Your task to perform on an android device: Go to Reddit.com Image 0: 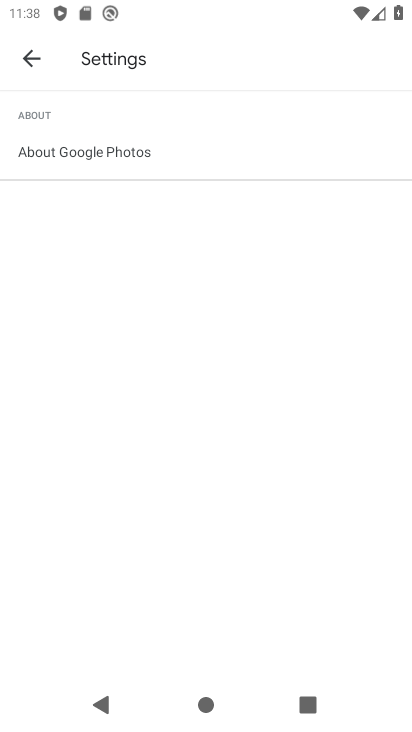
Step 0: click (35, 53)
Your task to perform on an android device: Go to Reddit.com Image 1: 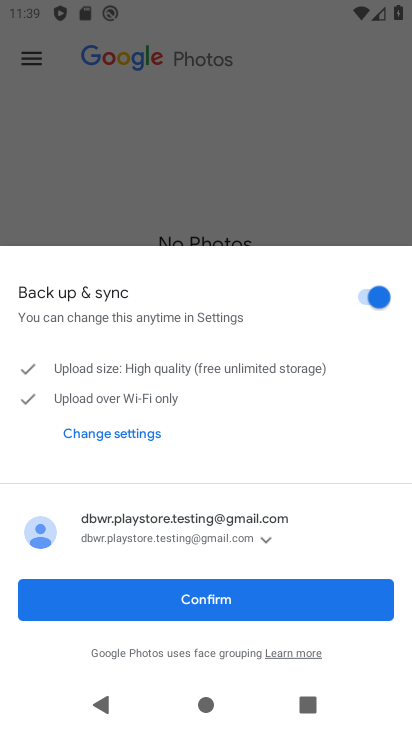
Step 1: click (147, 614)
Your task to perform on an android device: Go to Reddit.com Image 2: 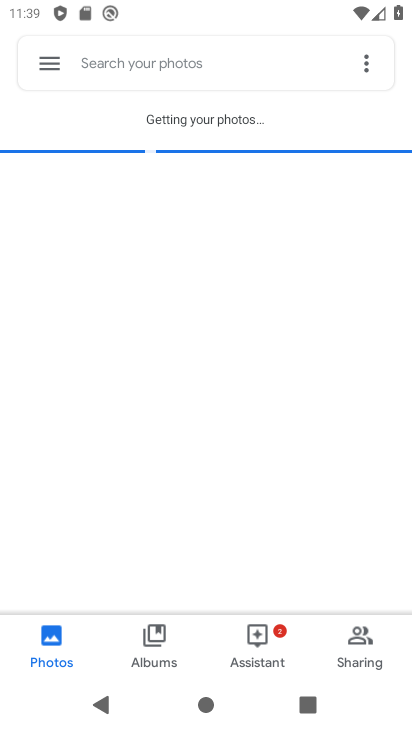
Step 2: press home button
Your task to perform on an android device: Go to Reddit.com Image 3: 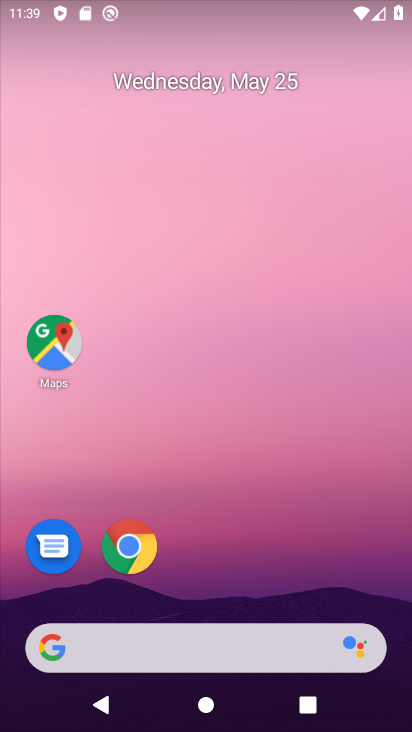
Step 3: click (163, 627)
Your task to perform on an android device: Go to Reddit.com Image 4: 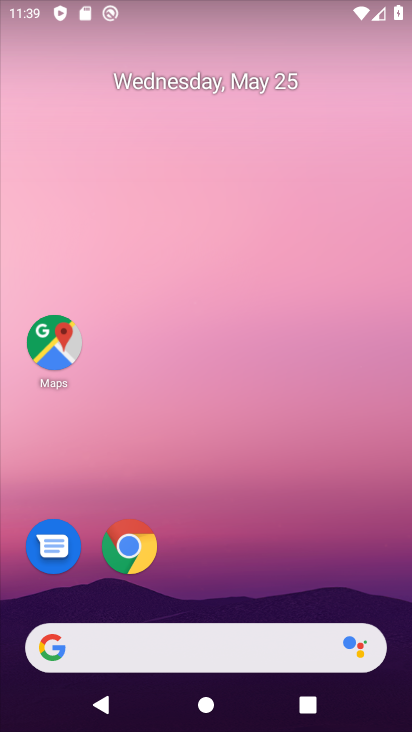
Step 4: click (192, 635)
Your task to perform on an android device: Go to Reddit.com Image 5: 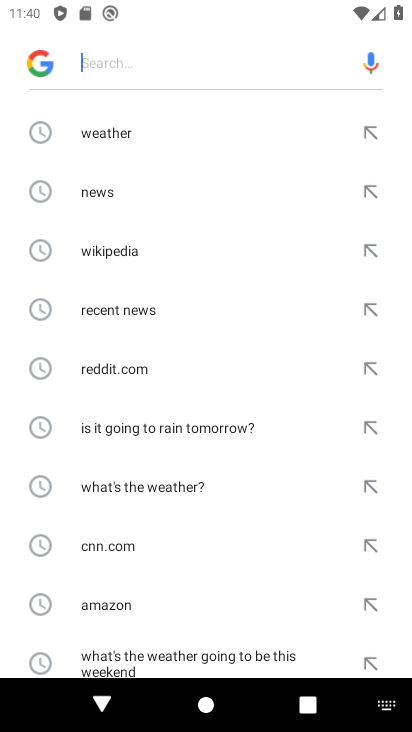
Step 5: click (143, 376)
Your task to perform on an android device: Go to Reddit.com Image 6: 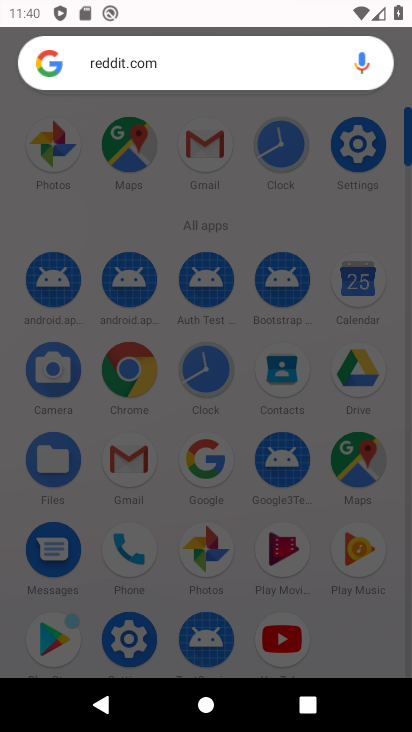
Step 6: click (159, 366)
Your task to perform on an android device: Go to Reddit.com Image 7: 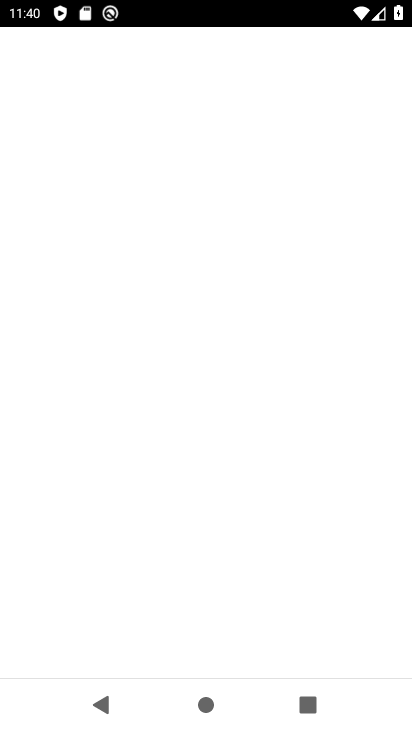
Step 7: click (124, 375)
Your task to perform on an android device: Go to Reddit.com Image 8: 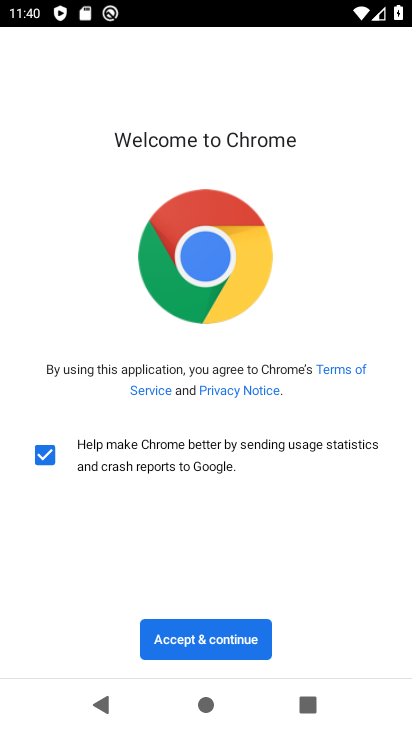
Step 8: click (186, 624)
Your task to perform on an android device: Go to Reddit.com Image 9: 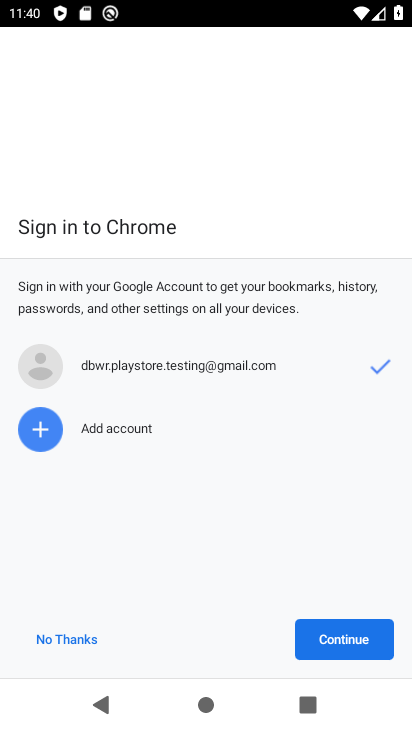
Step 9: click (378, 650)
Your task to perform on an android device: Go to Reddit.com Image 10: 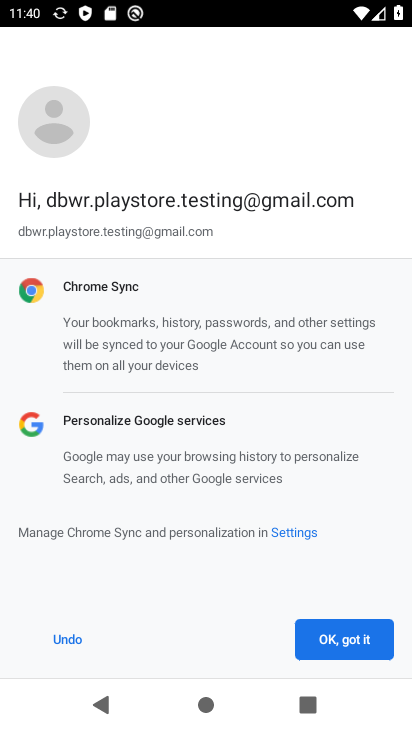
Step 10: click (378, 650)
Your task to perform on an android device: Go to Reddit.com Image 11: 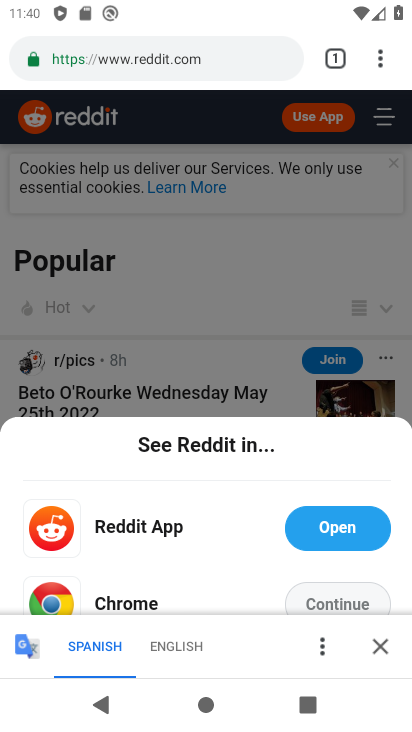
Step 11: task complete